Your task to perform on an android device: turn off wifi Image 0: 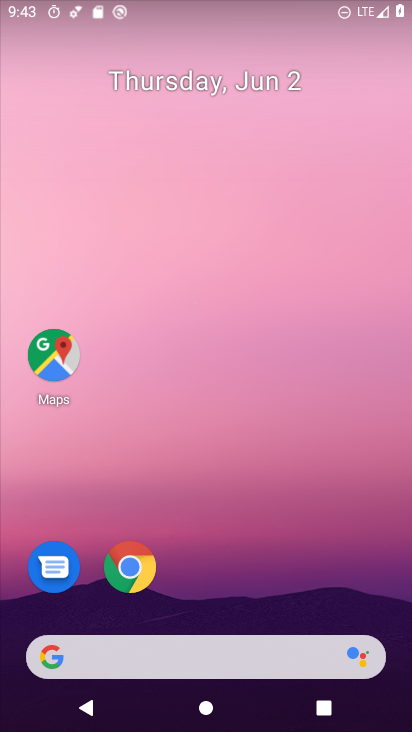
Step 0: drag from (372, 593) to (367, 201)
Your task to perform on an android device: turn off wifi Image 1: 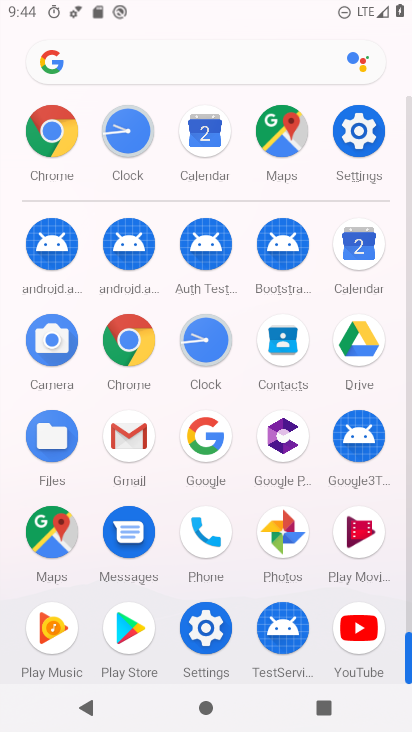
Step 1: click (218, 638)
Your task to perform on an android device: turn off wifi Image 2: 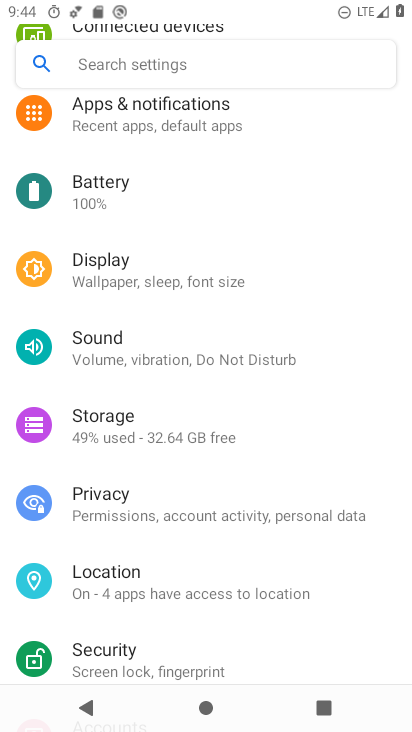
Step 2: drag from (297, 252) to (282, 634)
Your task to perform on an android device: turn off wifi Image 3: 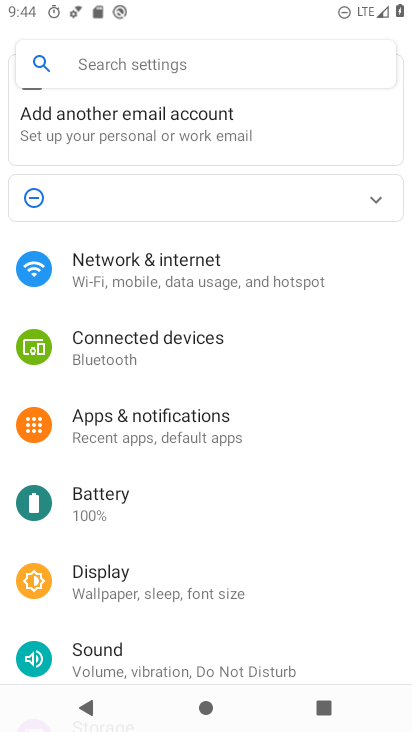
Step 3: click (226, 263)
Your task to perform on an android device: turn off wifi Image 4: 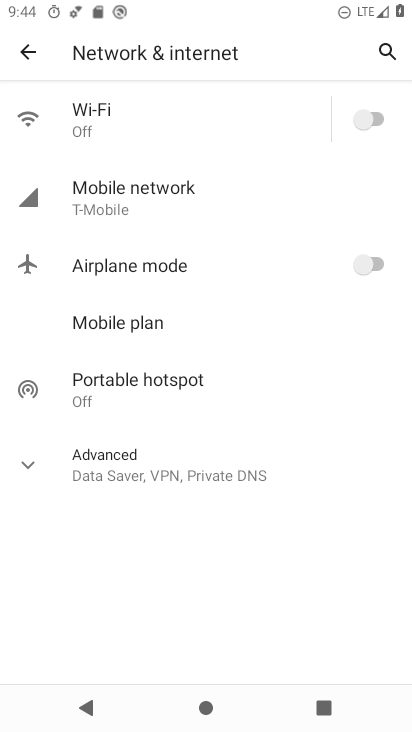
Step 4: task complete